Your task to perform on an android device: Open Chrome and go to settings Image 0: 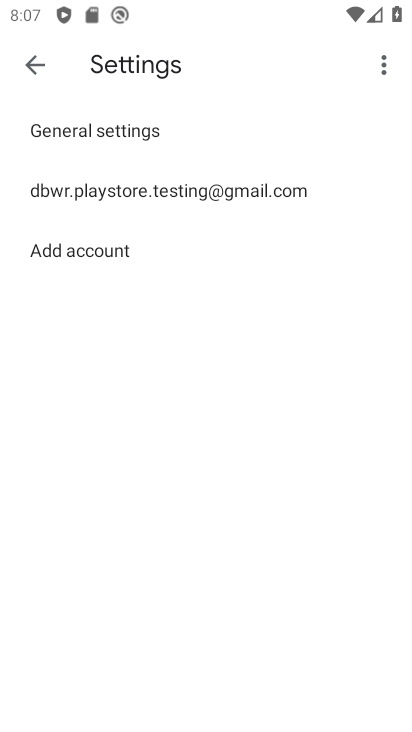
Step 0: press home button
Your task to perform on an android device: Open Chrome and go to settings Image 1: 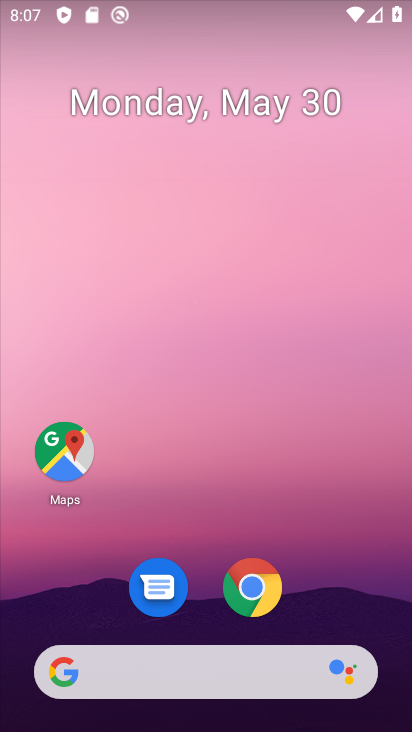
Step 1: click (260, 600)
Your task to perform on an android device: Open Chrome and go to settings Image 2: 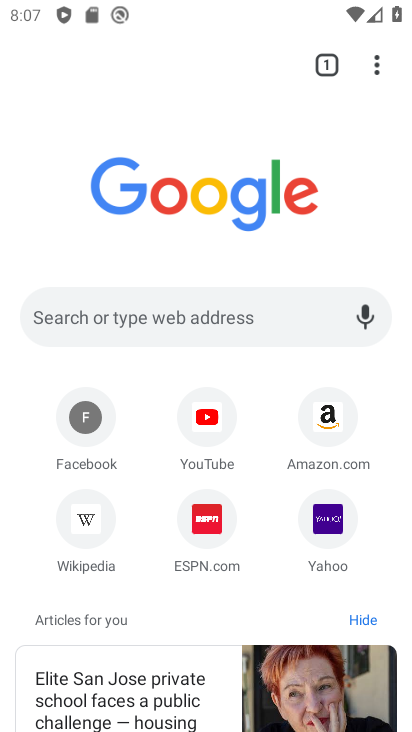
Step 2: click (378, 65)
Your task to perform on an android device: Open Chrome and go to settings Image 3: 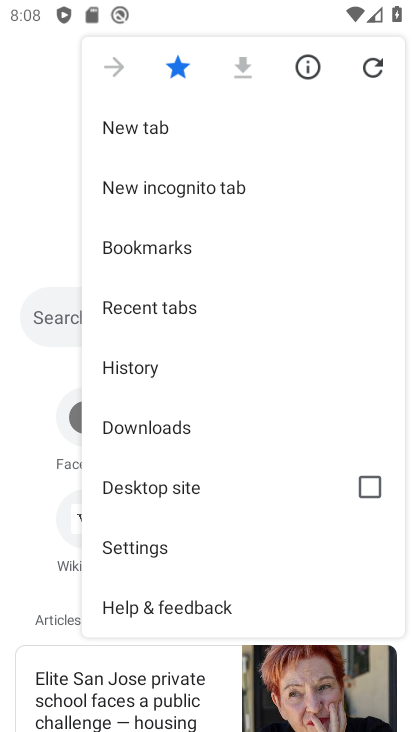
Step 3: click (123, 548)
Your task to perform on an android device: Open Chrome and go to settings Image 4: 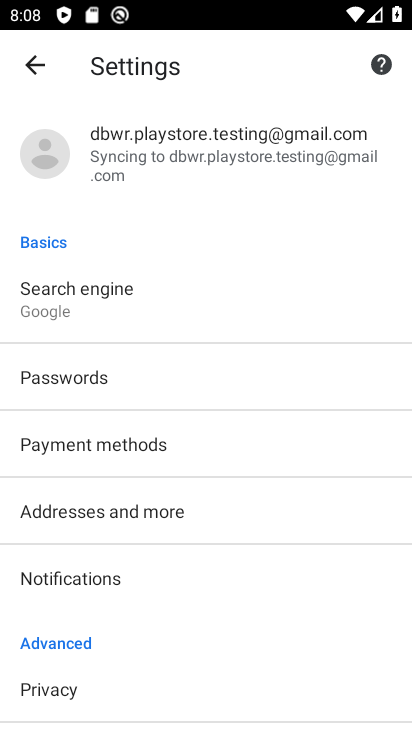
Step 4: task complete